Your task to perform on an android device: Do I have any events this weekend? Image 0: 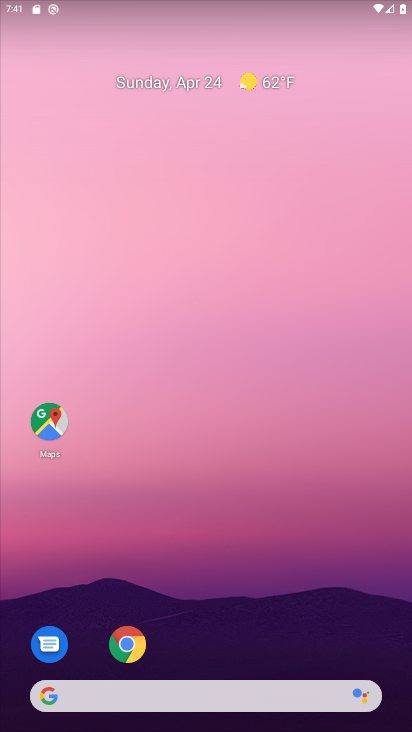
Step 0: drag from (211, 638) to (243, 48)
Your task to perform on an android device: Do I have any events this weekend? Image 1: 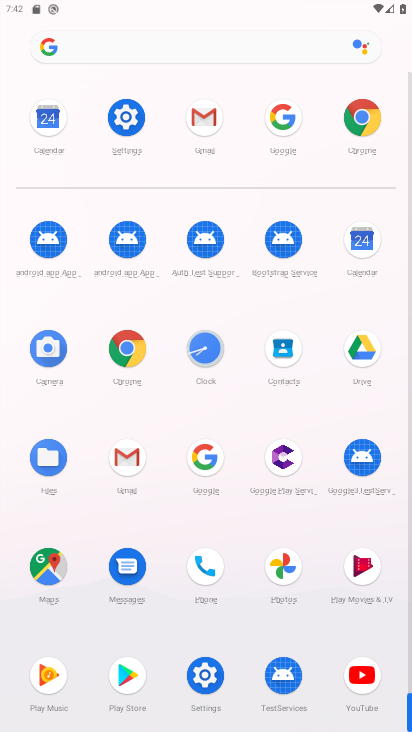
Step 1: click (361, 236)
Your task to perform on an android device: Do I have any events this weekend? Image 2: 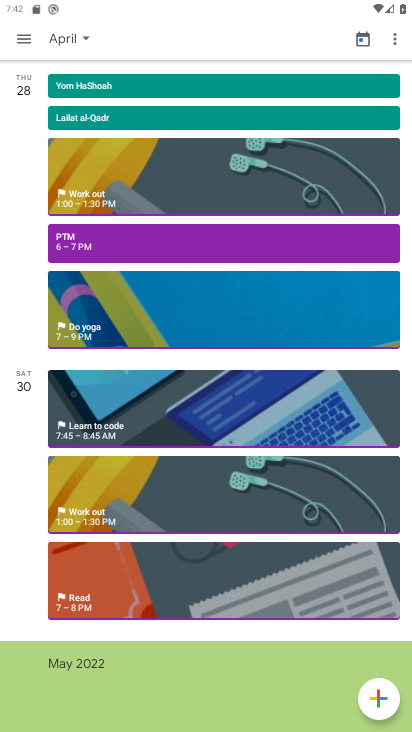
Step 2: click (14, 36)
Your task to perform on an android device: Do I have any events this weekend? Image 3: 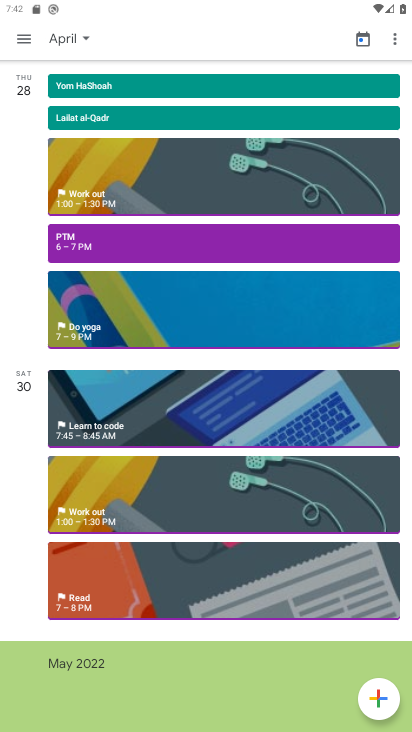
Step 3: click (28, 36)
Your task to perform on an android device: Do I have any events this weekend? Image 4: 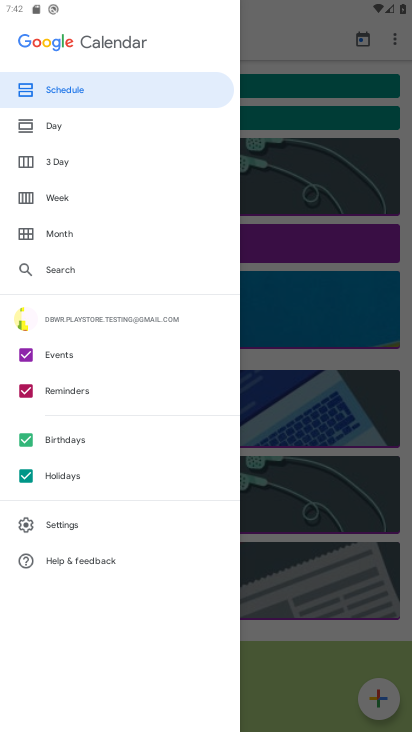
Step 4: click (25, 386)
Your task to perform on an android device: Do I have any events this weekend? Image 5: 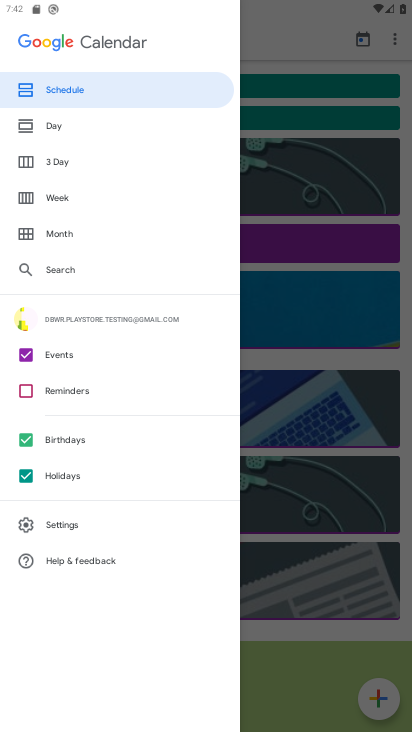
Step 5: click (27, 436)
Your task to perform on an android device: Do I have any events this weekend? Image 6: 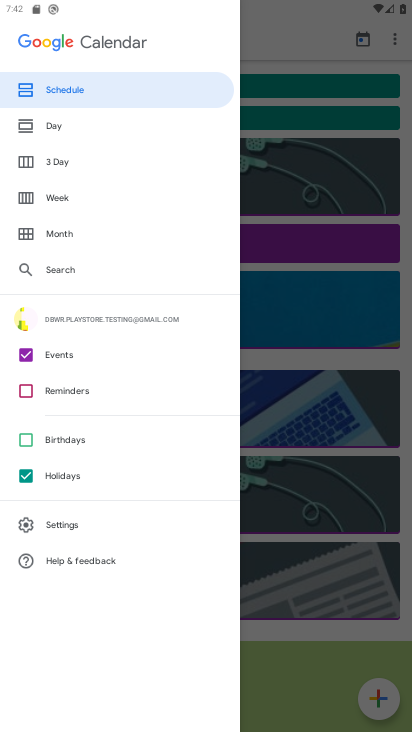
Step 6: click (26, 477)
Your task to perform on an android device: Do I have any events this weekend? Image 7: 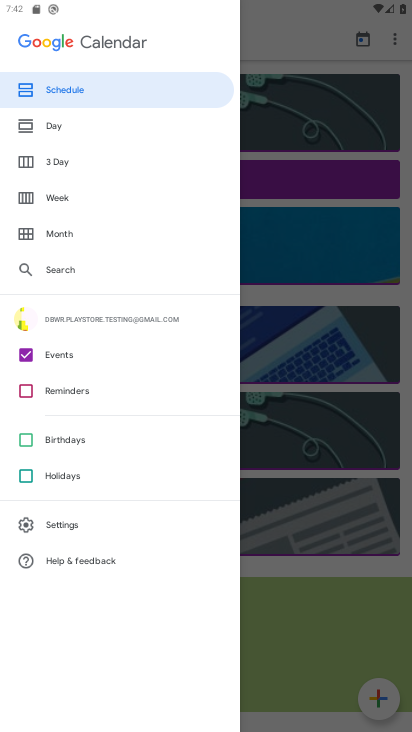
Step 7: click (36, 197)
Your task to perform on an android device: Do I have any events this weekend? Image 8: 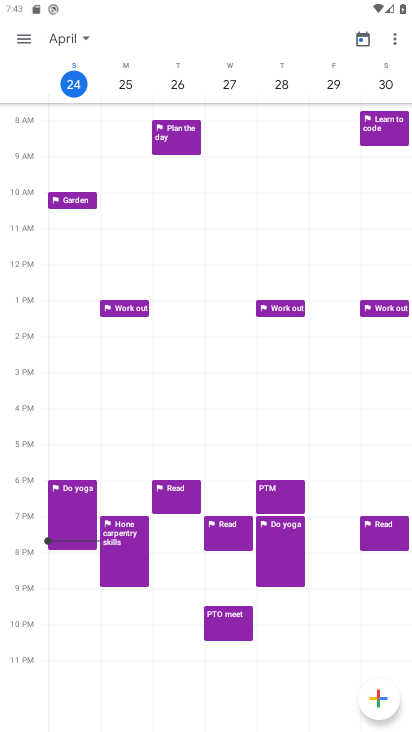
Step 8: click (74, 87)
Your task to perform on an android device: Do I have any events this weekend? Image 9: 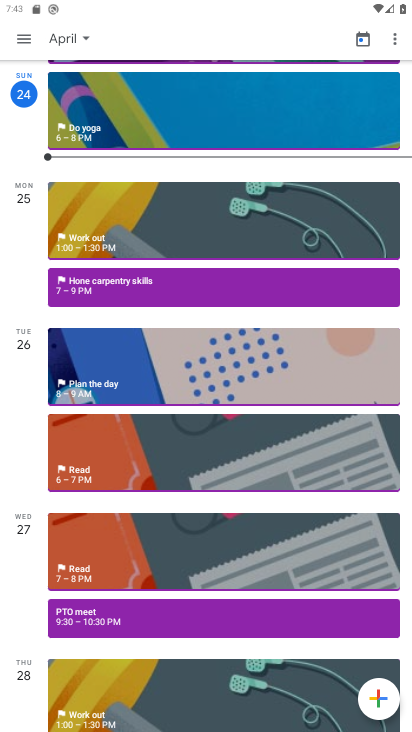
Step 9: task complete